Your task to perform on an android device: turn on translation in the chrome app Image 0: 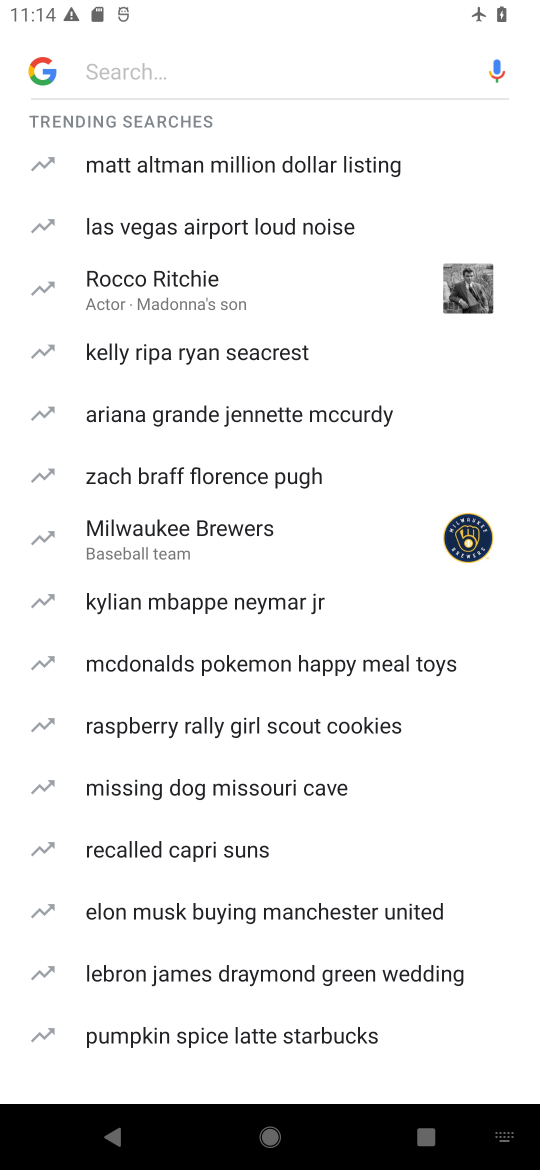
Step 0: press home button
Your task to perform on an android device: turn on translation in the chrome app Image 1: 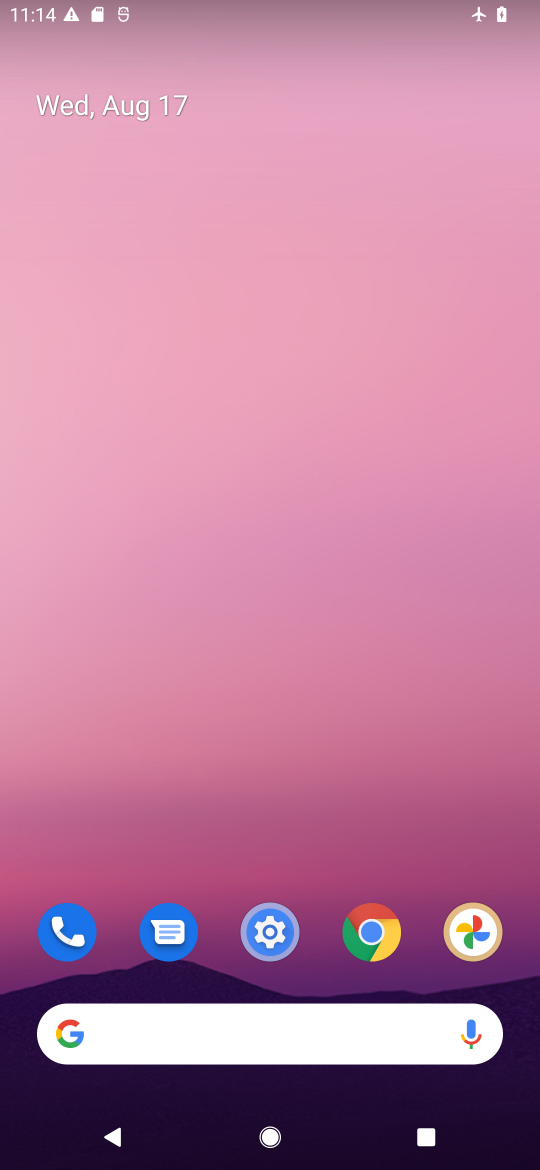
Step 1: click (362, 922)
Your task to perform on an android device: turn on translation in the chrome app Image 2: 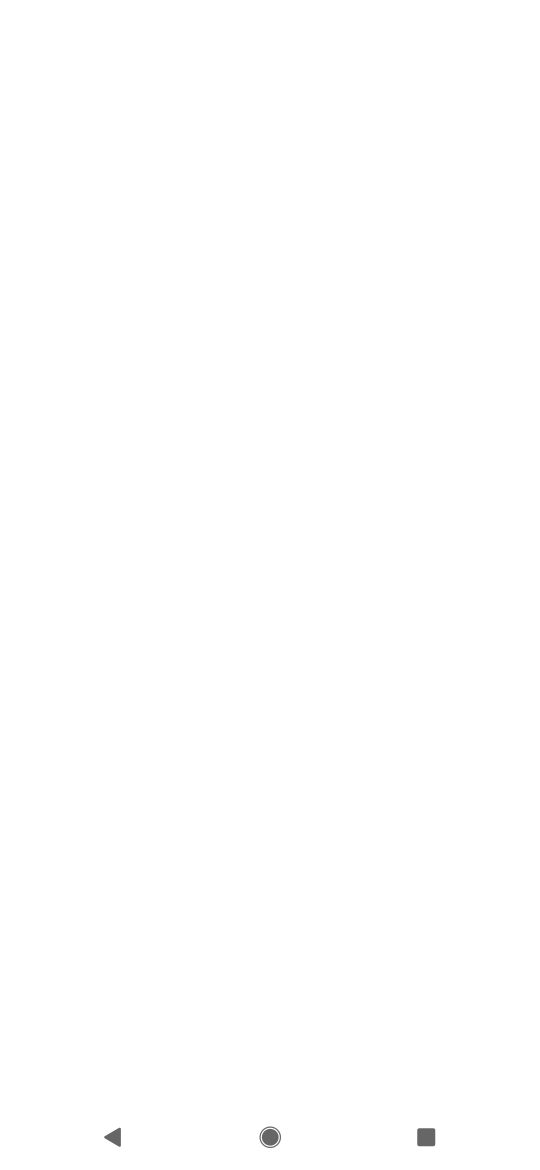
Step 2: task complete